Your task to perform on an android device: change keyboard looks Image 0: 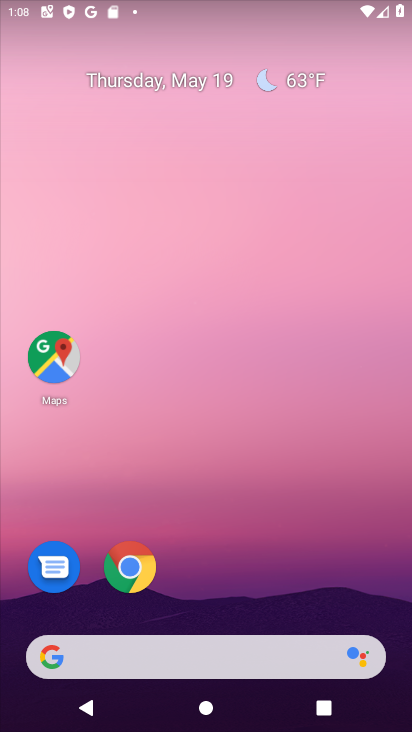
Step 0: drag from (300, 537) to (311, 1)
Your task to perform on an android device: change keyboard looks Image 1: 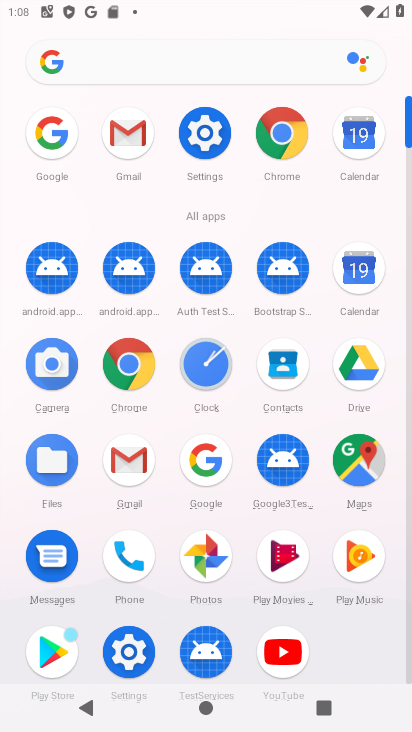
Step 1: click (208, 130)
Your task to perform on an android device: change keyboard looks Image 2: 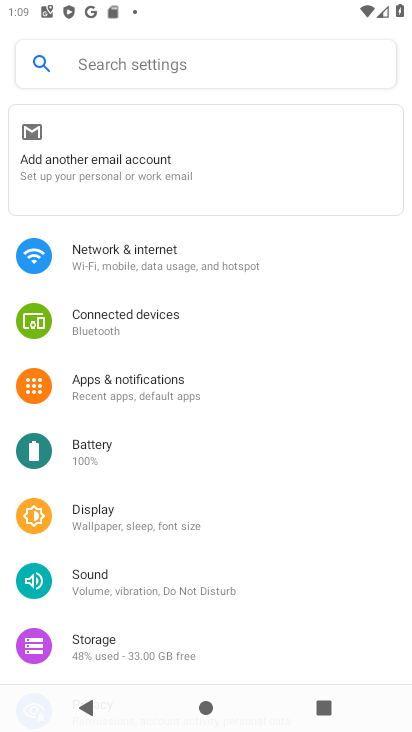
Step 2: drag from (147, 566) to (117, 140)
Your task to perform on an android device: change keyboard looks Image 3: 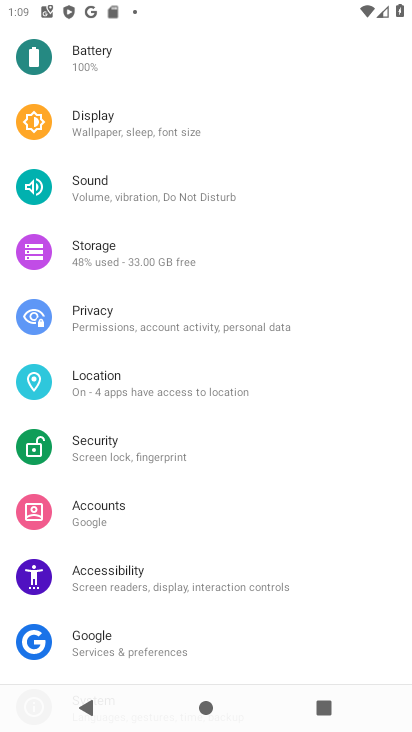
Step 3: drag from (131, 569) to (180, 122)
Your task to perform on an android device: change keyboard looks Image 4: 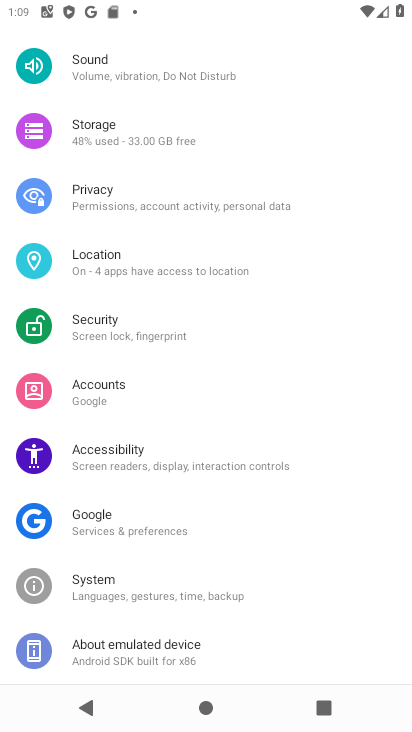
Step 4: click (142, 592)
Your task to perform on an android device: change keyboard looks Image 5: 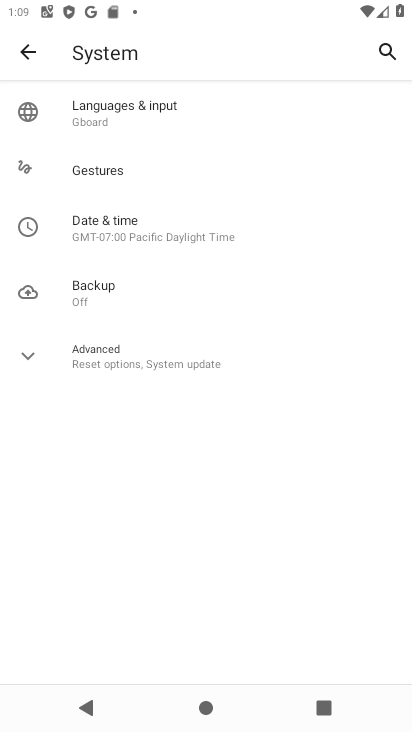
Step 5: click (137, 124)
Your task to perform on an android device: change keyboard looks Image 6: 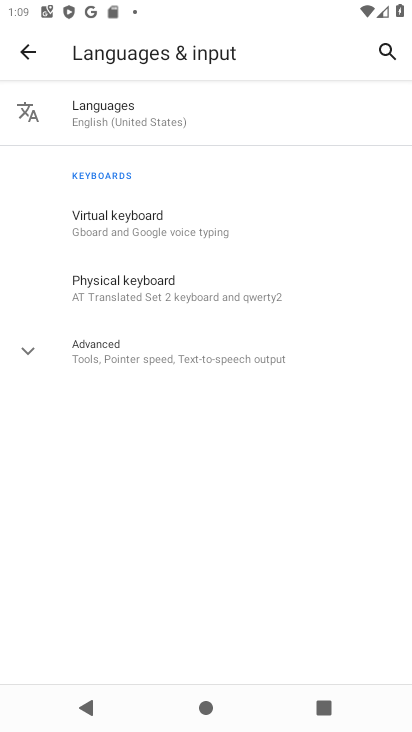
Step 6: click (131, 231)
Your task to perform on an android device: change keyboard looks Image 7: 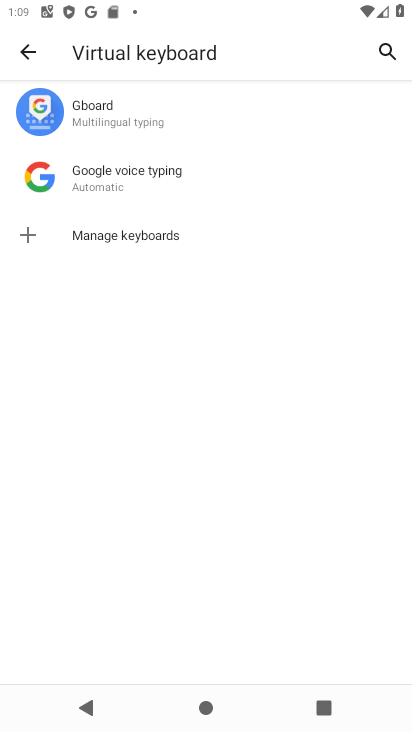
Step 7: click (108, 124)
Your task to perform on an android device: change keyboard looks Image 8: 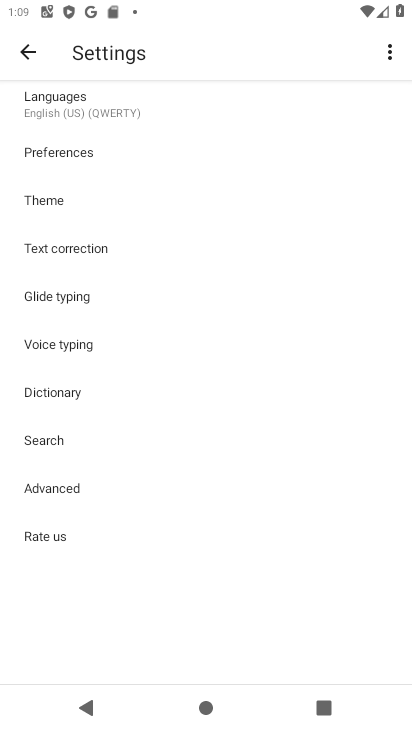
Step 8: click (56, 206)
Your task to perform on an android device: change keyboard looks Image 9: 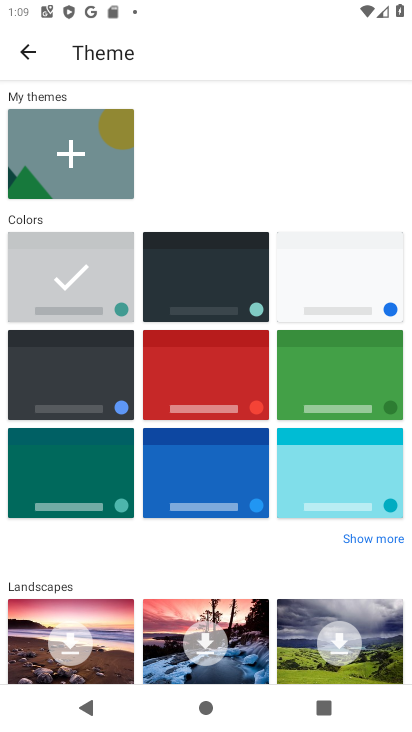
Step 9: click (169, 301)
Your task to perform on an android device: change keyboard looks Image 10: 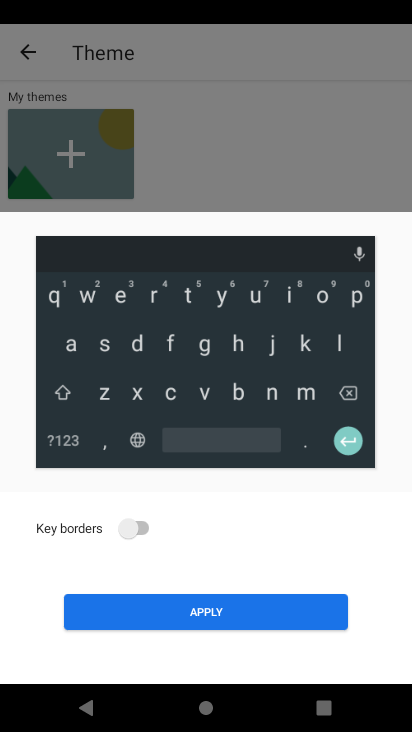
Step 10: click (194, 617)
Your task to perform on an android device: change keyboard looks Image 11: 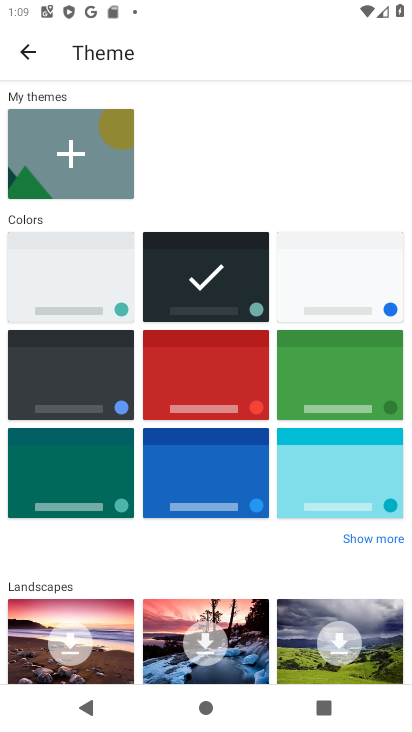
Step 11: task complete